Your task to perform on an android device: Open sound settings Image 0: 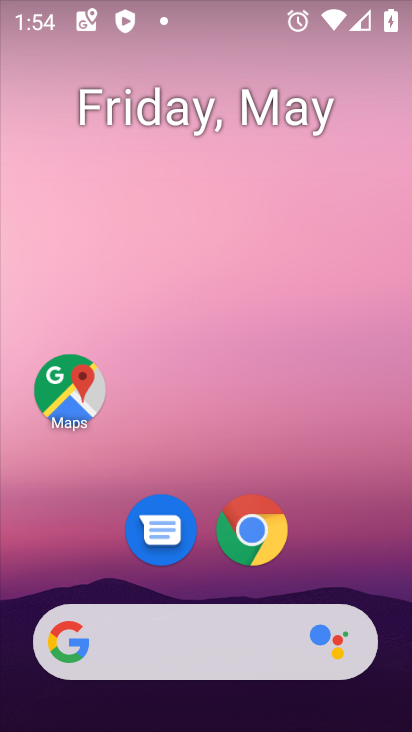
Step 0: drag from (319, 572) to (320, 28)
Your task to perform on an android device: Open sound settings Image 1: 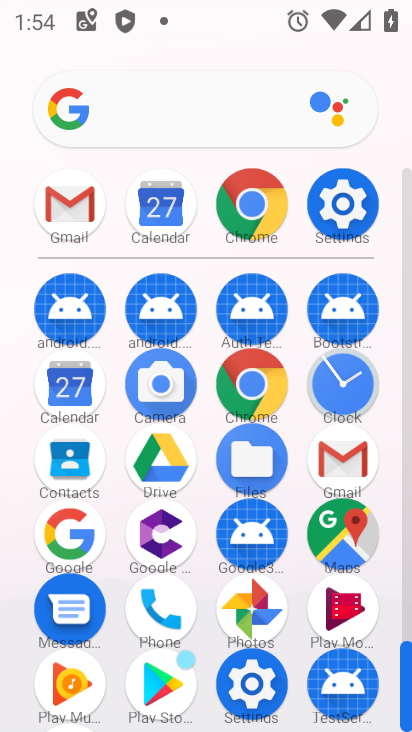
Step 1: click (339, 208)
Your task to perform on an android device: Open sound settings Image 2: 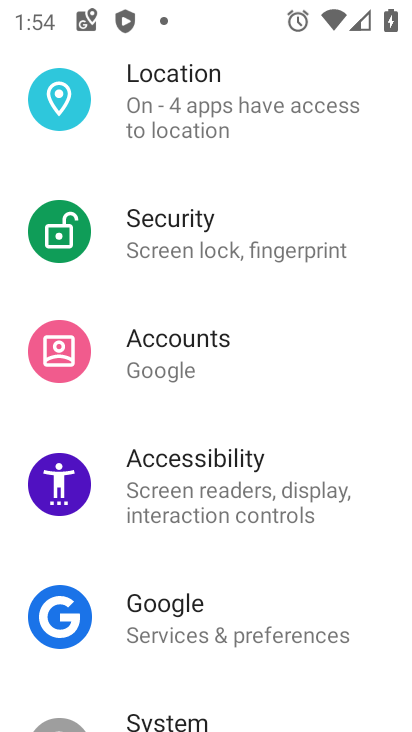
Step 2: drag from (237, 212) to (258, 374)
Your task to perform on an android device: Open sound settings Image 3: 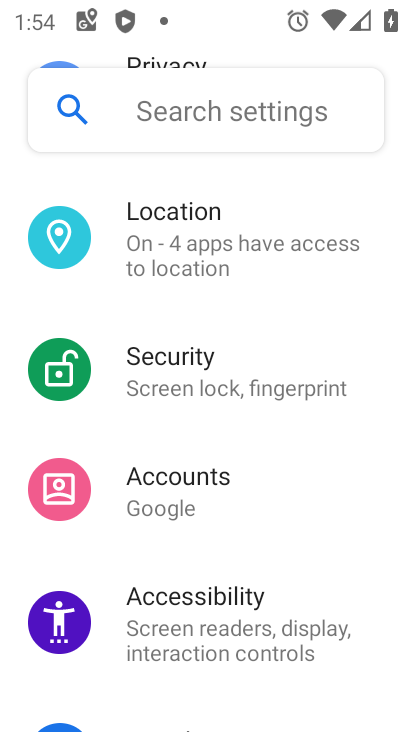
Step 3: click (225, 501)
Your task to perform on an android device: Open sound settings Image 4: 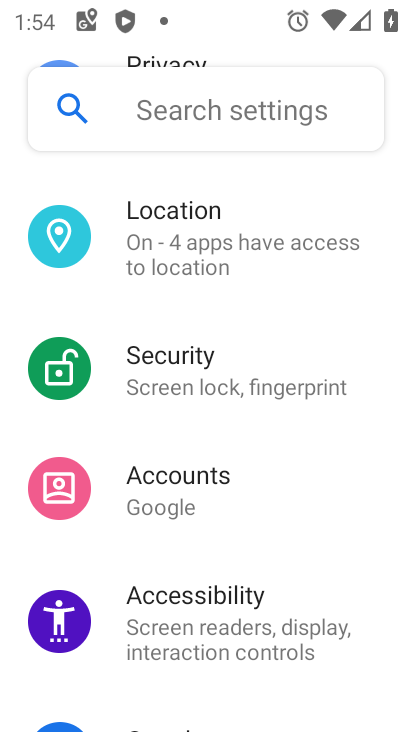
Step 4: drag from (192, 254) to (204, 546)
Your task to perform on an android device: Open sound settings Image 5: 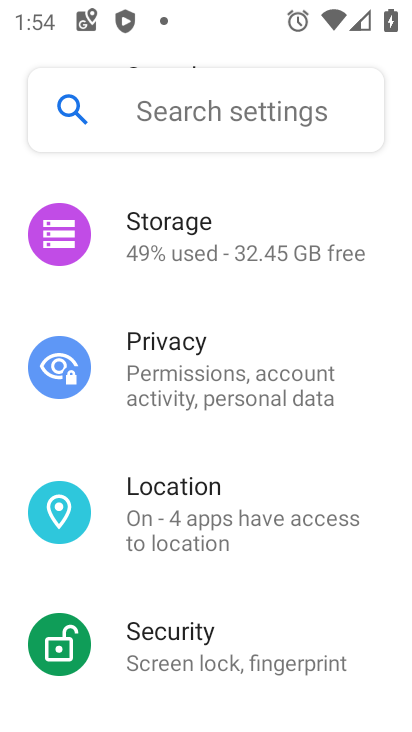
Step 5: drag from (203, 283) to (212, 535)
Your task to perform on an android device: Open sound settings Image 6: 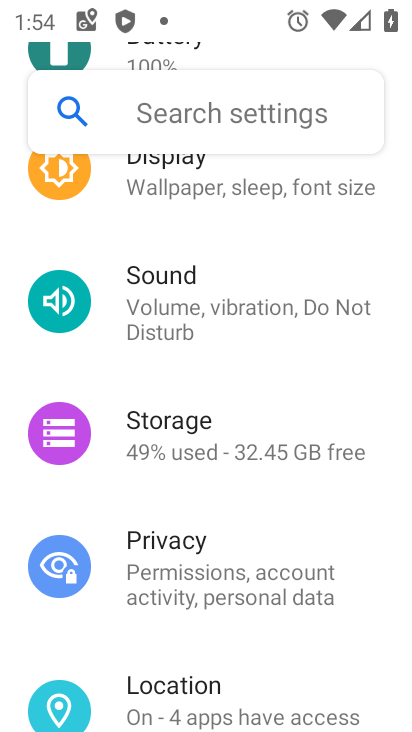
Step 6: click (204, 277)
Your task to perform on an android device: Open sound settings Image 7: 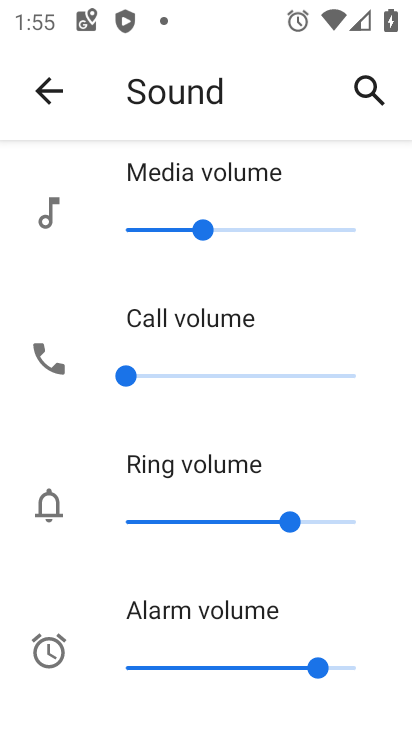
Step 7: task complete